Your task to perform on an android device: change alarm snooze length Image 0: 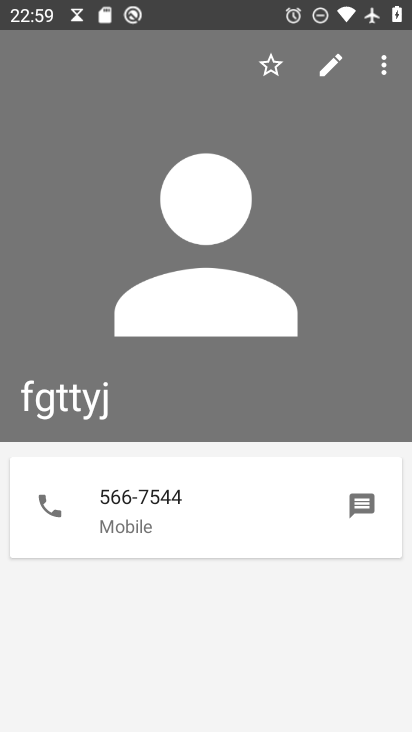
Step 0: press home button
Your task to perform on an android device: change alarm snooze length Image 1: 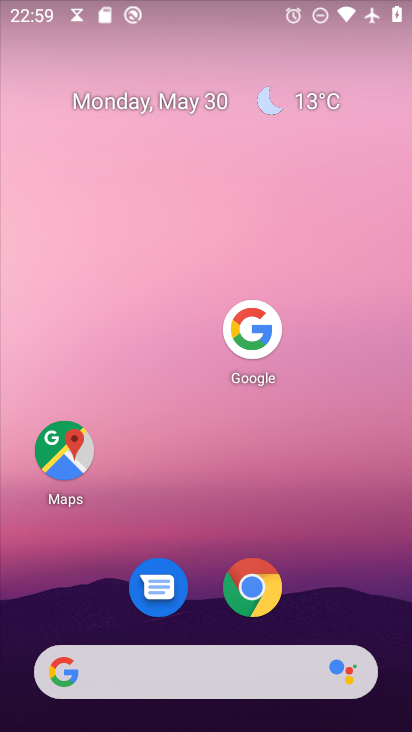
Step 1: drag from (236, 669) to (254, 278)
Your task to perform on an android device: change alarm snooze length Image 2: 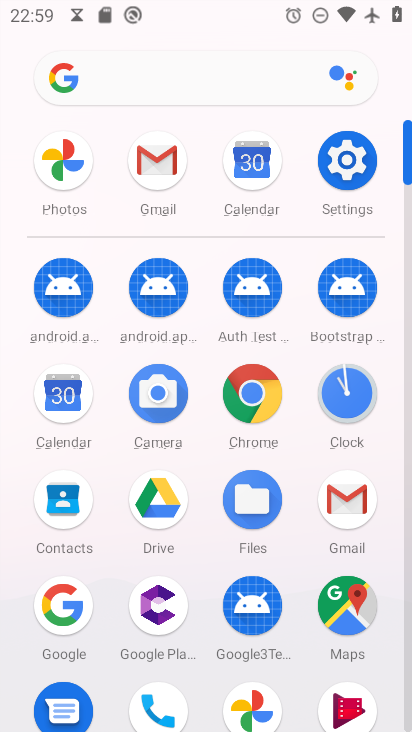
Step 2: click (343, 410)
Your task to perform on an android device: change alarm snooze length Image 3: 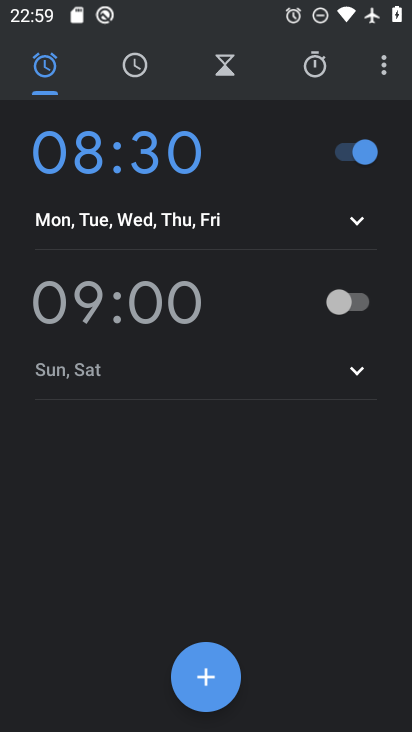
Step 3: click (387, 59)
Your task to perform on an android device: change alarm snooze length Image 4: 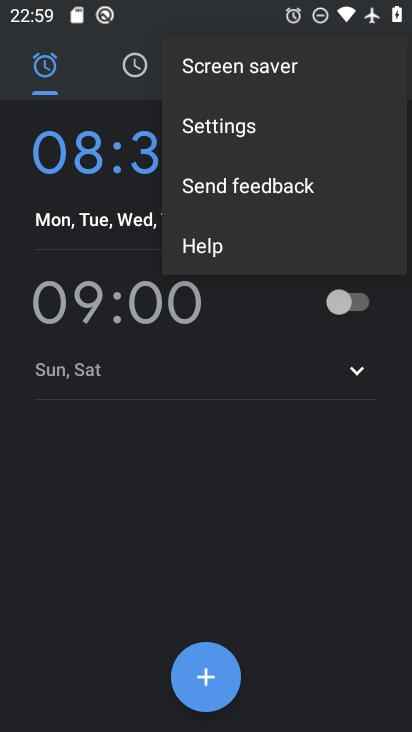
Step 4: click (242, 133)
Your task to perform on an android device: change alarm snooze length Image 5: 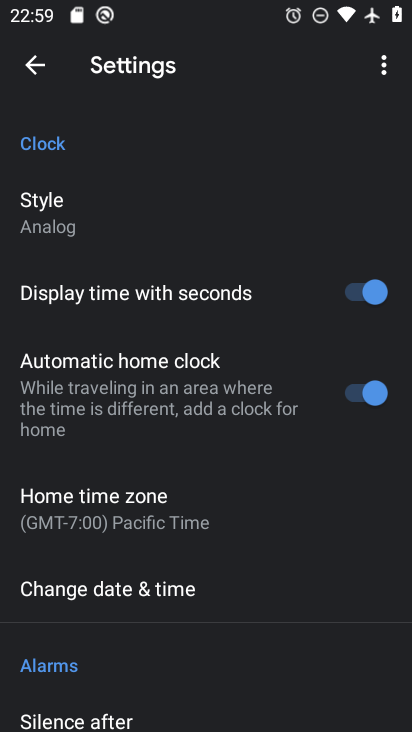
Step 5: drag from (205, 614) to (232, 273)
Your task to perform on an android device: change alarm snooze length Image 6: 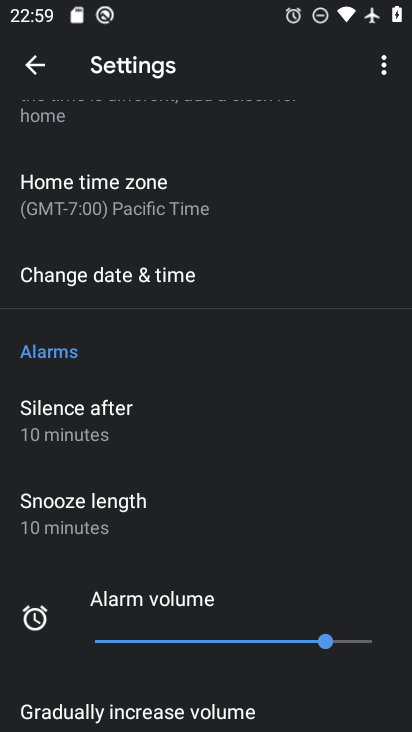
Step 6: click (110, 511)
Your task to perform on an android device: change alarm snooze length Image 7: 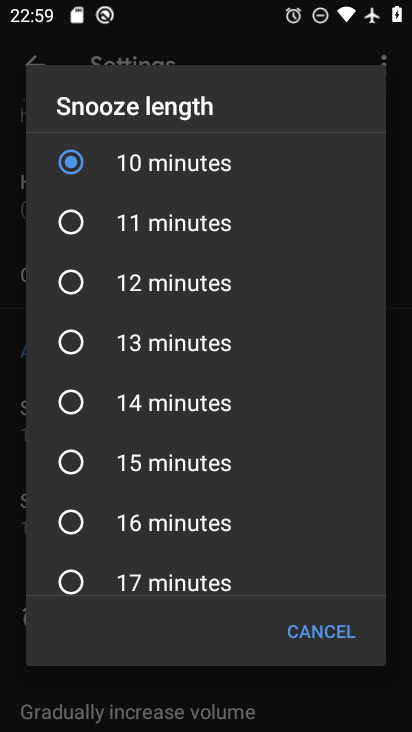
Step 7: click (71, 467)
Your task to perform on an android device: change alarm snooze length Image 8: 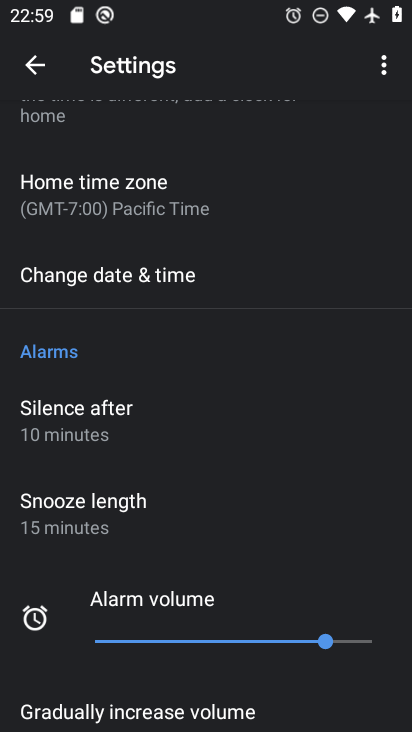
Step 8: task complete